Your task to perform on an android device: Open the calendar and show me this week's events Image 0: 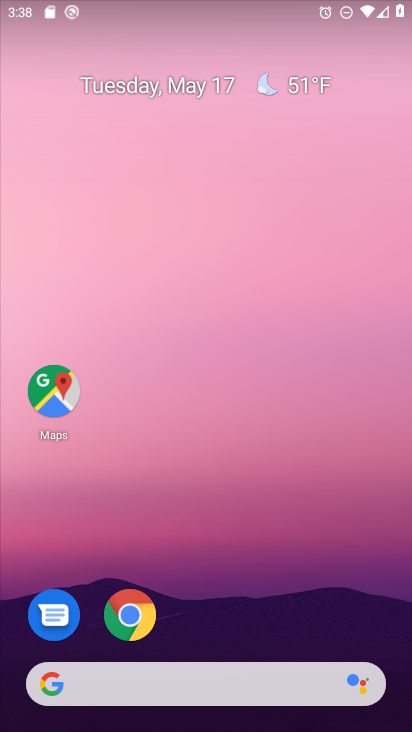
Step 0: drag from (212, 653) to (250, 58)
Your task to perform on an android device: Open the calendar and show me this week's events Image 1: 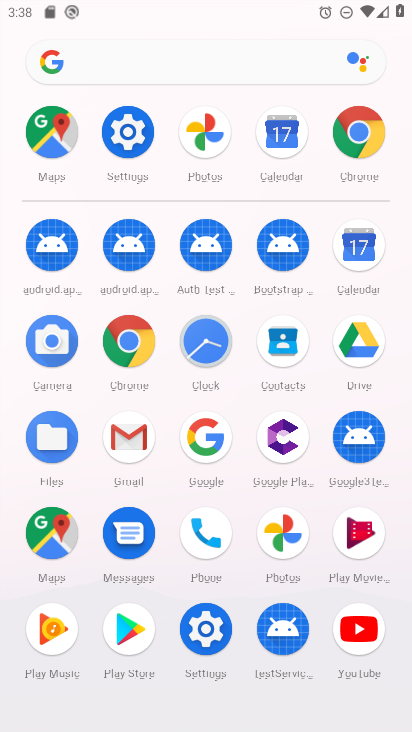
Step 1: click (280, 128)
Your task to perform on an android device: Open the calendar and show me this week's events Image 2: 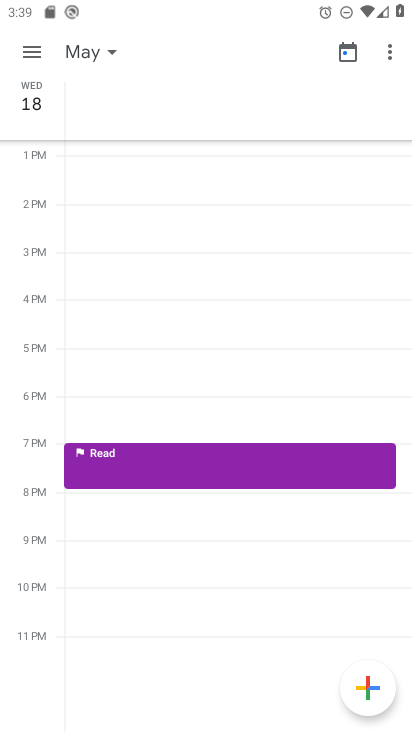
Step 2: drag from (35, 519) to (57, 134)
Your task to perform on an android device: Open the calendar and show me this week's events Image 3: 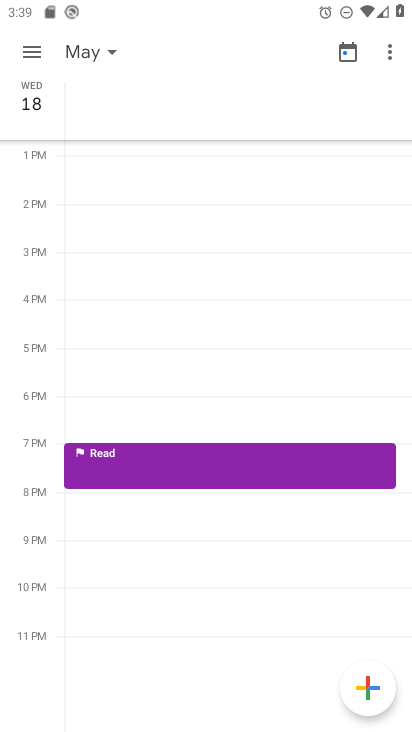
Step 3: drag from (39, 592) to (43, 211)
Your task to perform on an android device: Open the calendar and show me this week's events Image 4: 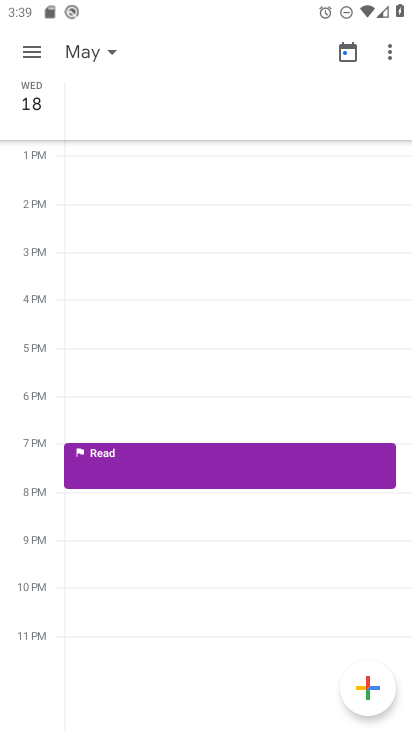
Step 4: click (32, 47)
Your task to perform on an android device: Open the calendar and show me this week's events Image 5: 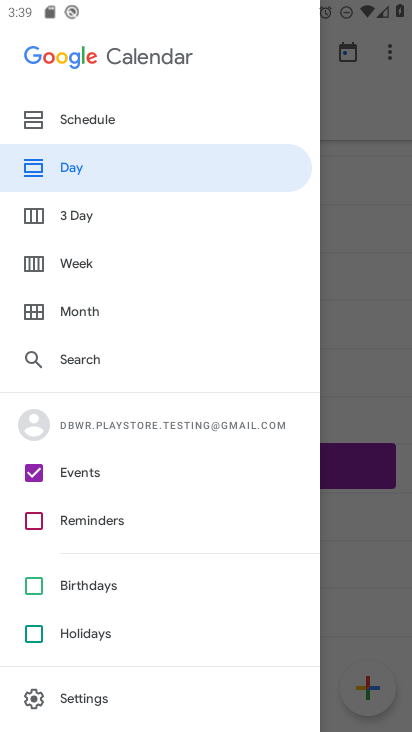
Step 5: click (79, 269)
Your task to perform on an android device: Open the calendar and show me this week's events Image 6: 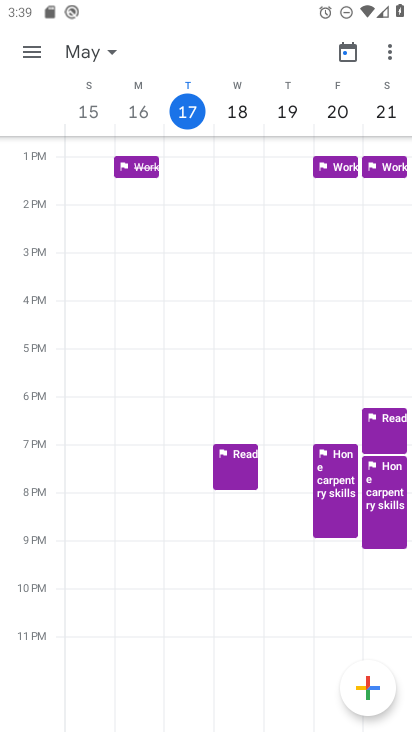
Step 6: click (380, 107)
Your task to perform on an android device: Open the calendar and show me this week's events Image 7: 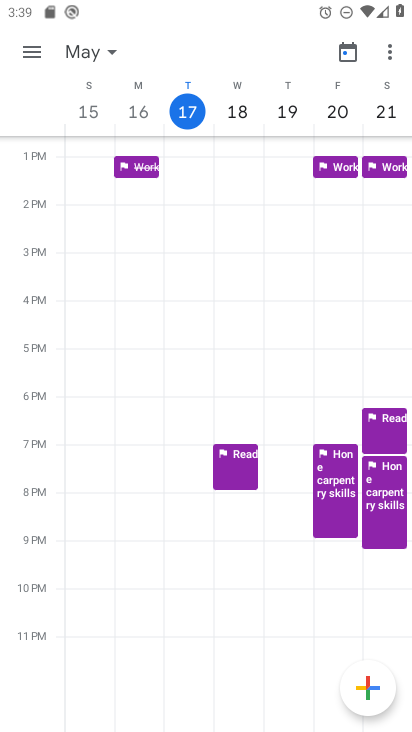
Step 7: click (195, 108)
Your task to perform on an android device: Open the calendar and show me this week's events Image 8: 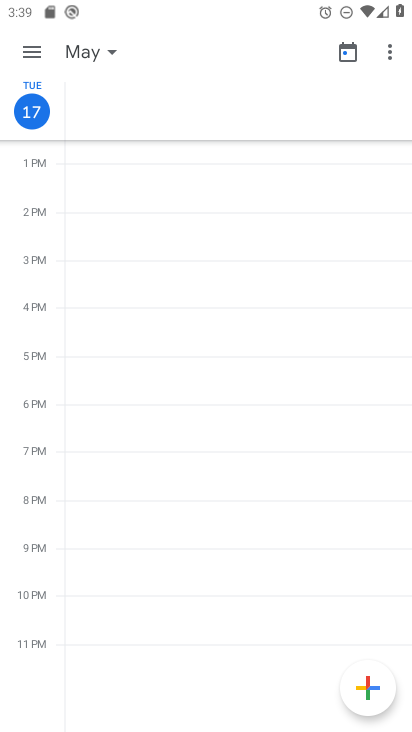
Step 8: click (45, 118)
Your task to perform on an android device: Open the calendar and show me this week's events Image 9: 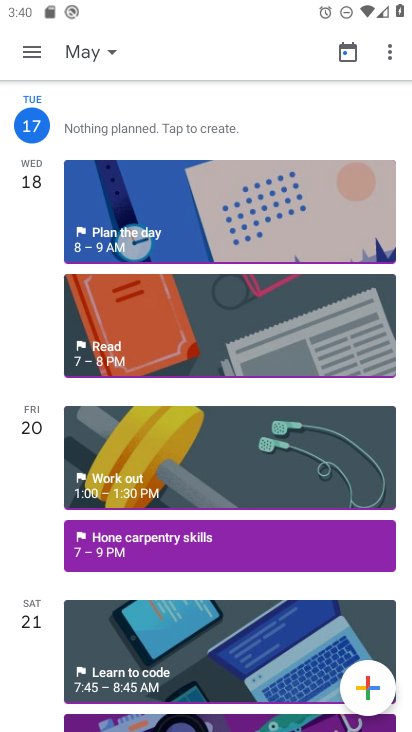
Step 9: click (38, 53)
Your task to perform on an android device: Open the calendar and show me this week's events Image 10: 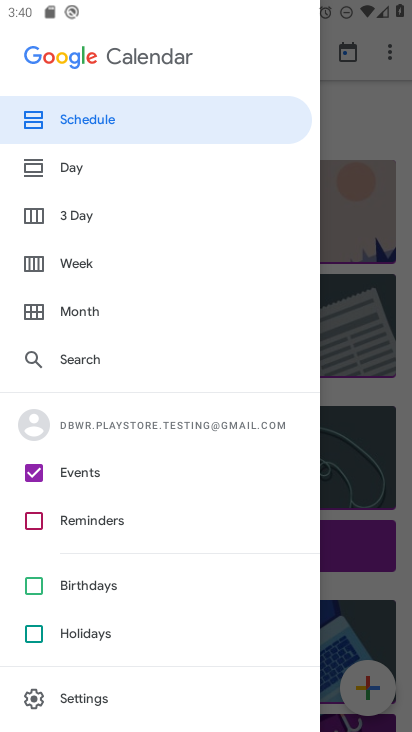
Step 10: click (71, 118)
Your task to perform on an android device: Open the calendar and show me this week's events Image 11: 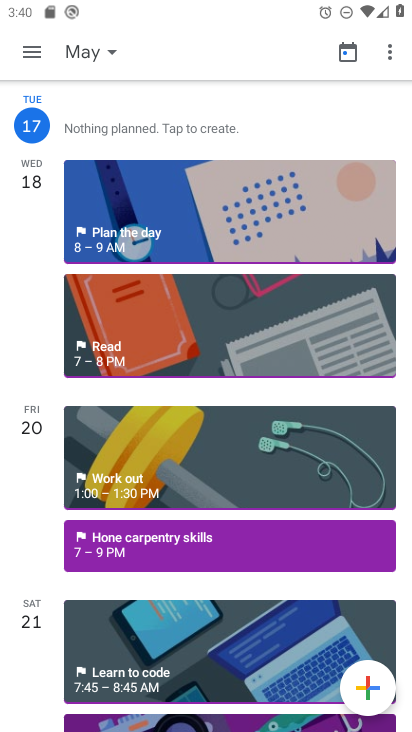
Step 11: task complete